Your task to perform on an android device: Open maps Image 0: 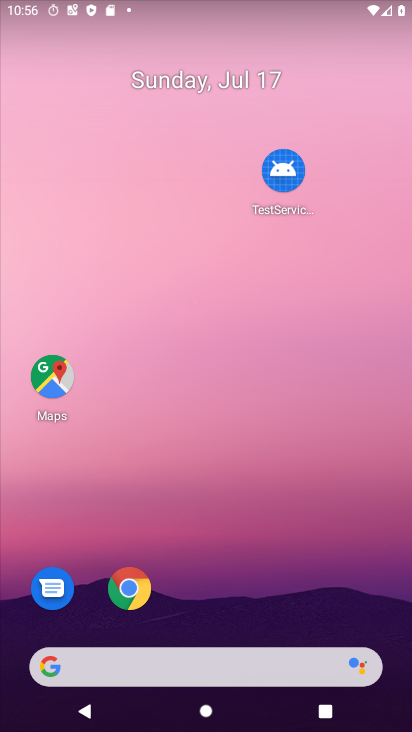
Step 0: drag from (246, 572) to (252, 29)
Your task to perform on an android device: Open maps Image 1: 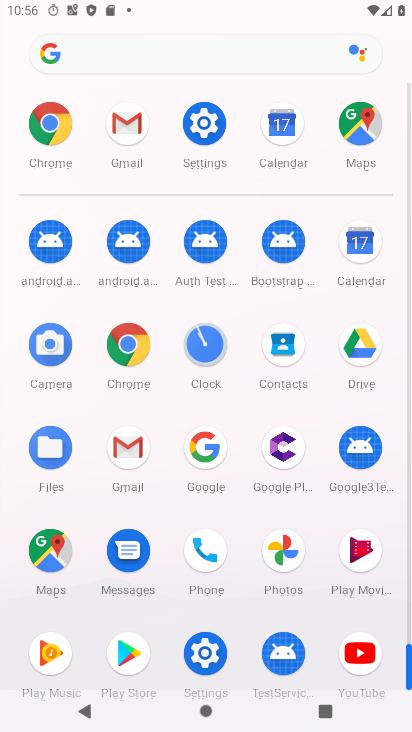
Step 1: click (57, 540)
Your task to perform on an android device: Open maps Image 2: 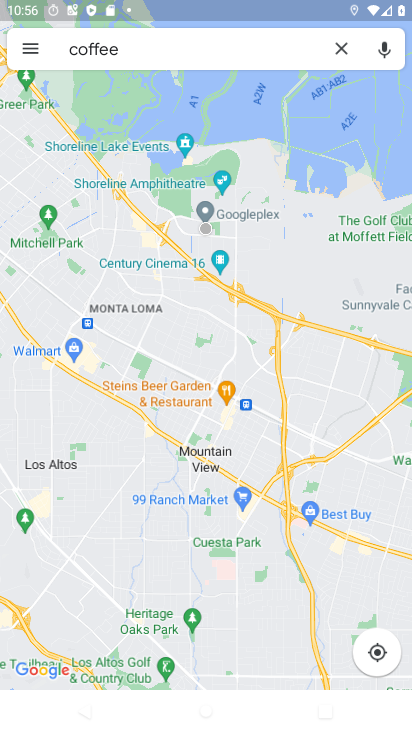
Step 2: task complete